Your task to perform on an android device: Open Google Image 0: 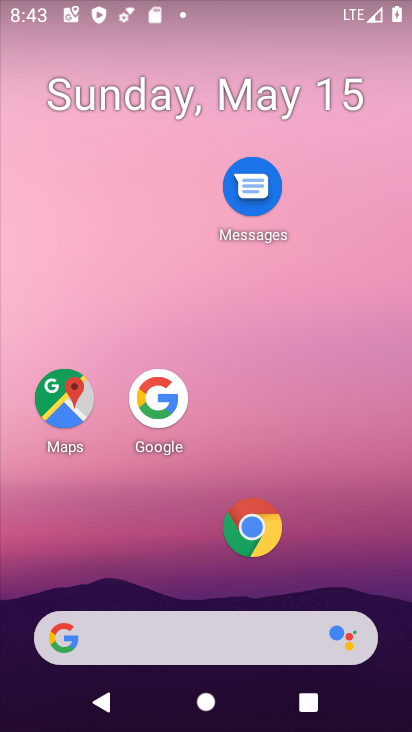
Step 0: drag from (131, 635) to (312, 52)
Your task to perform on an android device: Open Google Image 1: 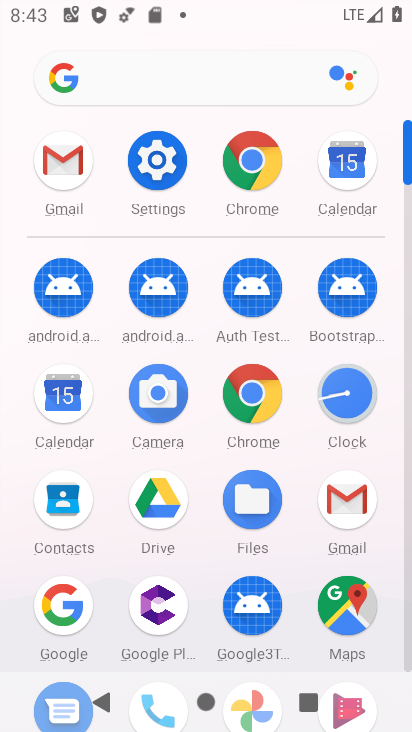
Step 1: click (67, 607)
Your task to perform on an android device: Open Google Image 2: 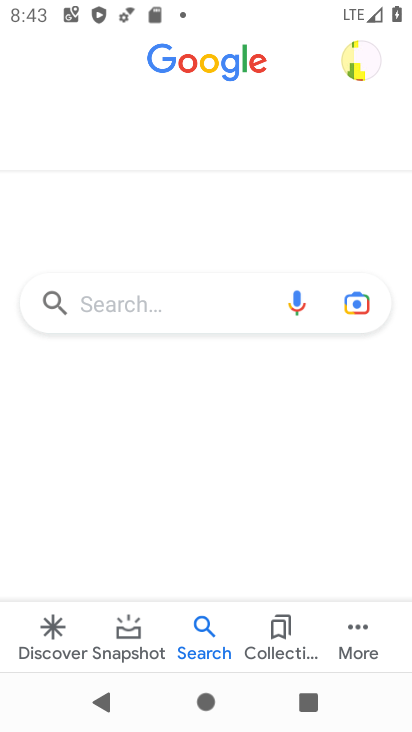
Step 2: task complete